Your task to perform on an android device: see tabs open on other devices in the chrome app Image 0: 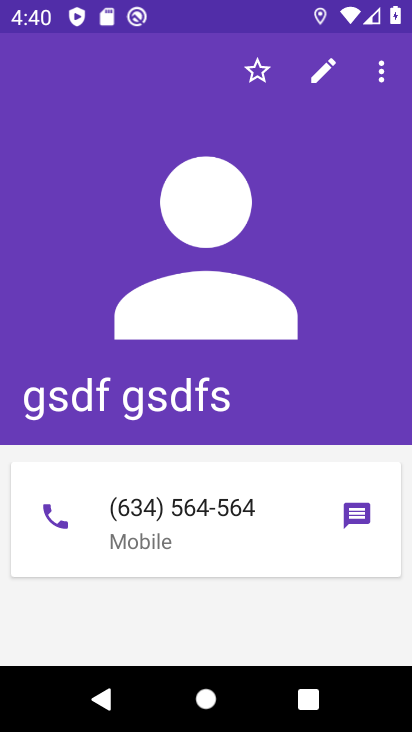
Step 0: press home button
Your task to perform on an android device: see tabs open on other devices in the chrome app Image 1: 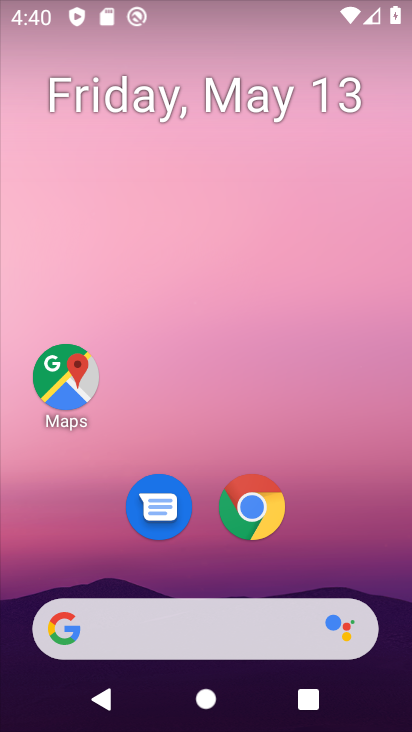
Step 1: click (256, 506)
Your task to perform on an android device: see tabs open on other devices in the chrome app Image 2: 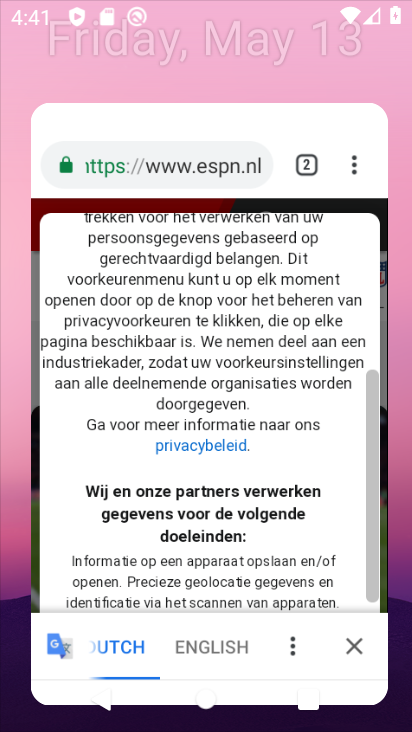
Step 2: click (250, 512)
Your task to perform on an android device: see tabs open on other devices in the chrome app Image 3: 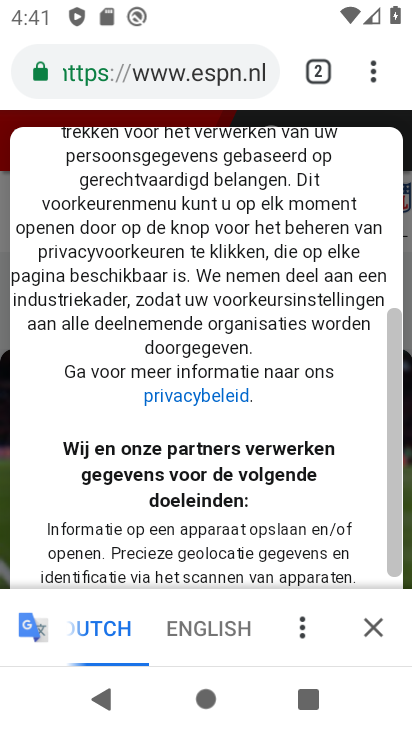
Step 3: click (366, 73)
Your task to perform on an android device: see tabs open on other devices in the chrome app Image 4: 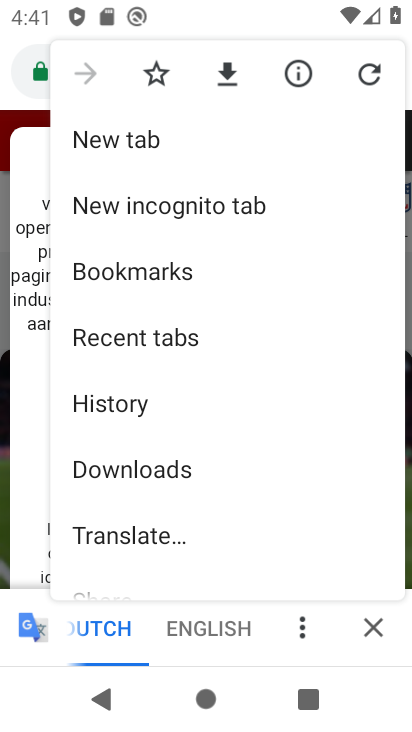
Step 4: click (154, 349)
Your task to perform on an android device: see tabs open on other devices in the chrome app Image 5: 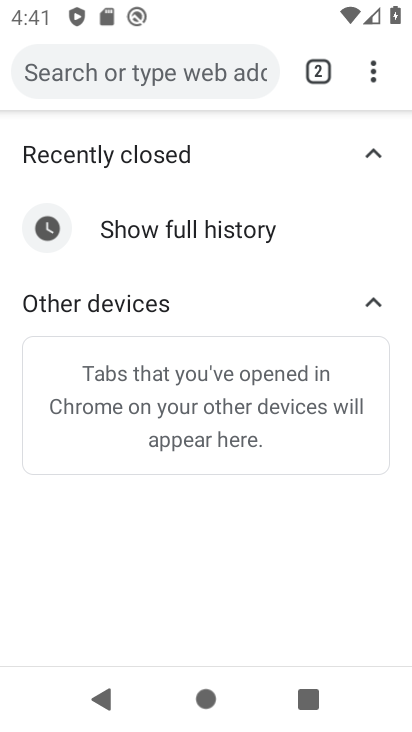
Step 5: task complete